Your task to perform on an android device: Open Android settings Image 0: 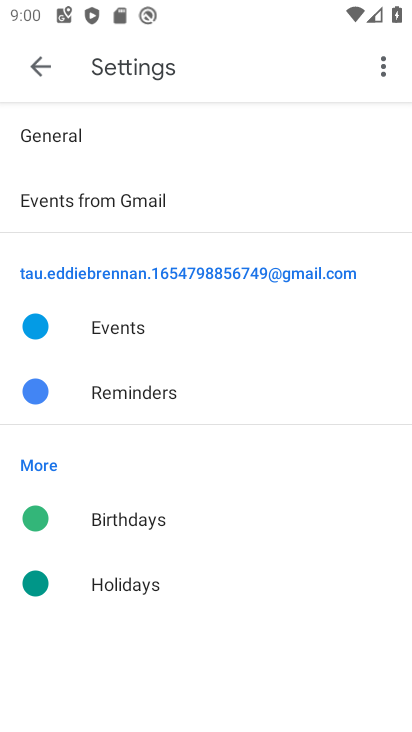
Step 0: press home button
Your task to perform on an android device: Open Android settings Image 1: 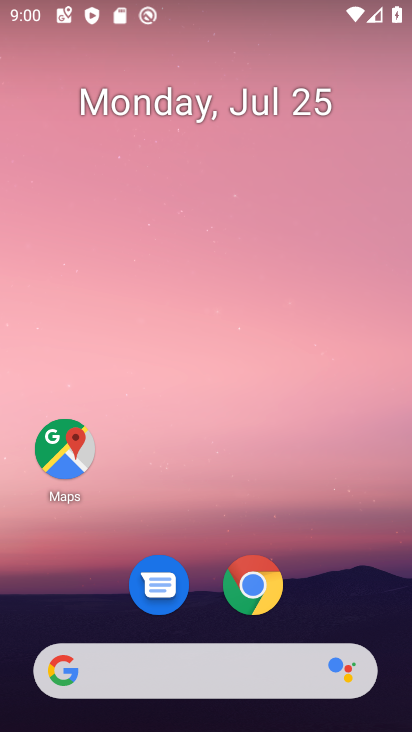
Step 1: drag from (182, 662) to (305, 173)
Your task to perform on an android device: Open Android settings Image 2: 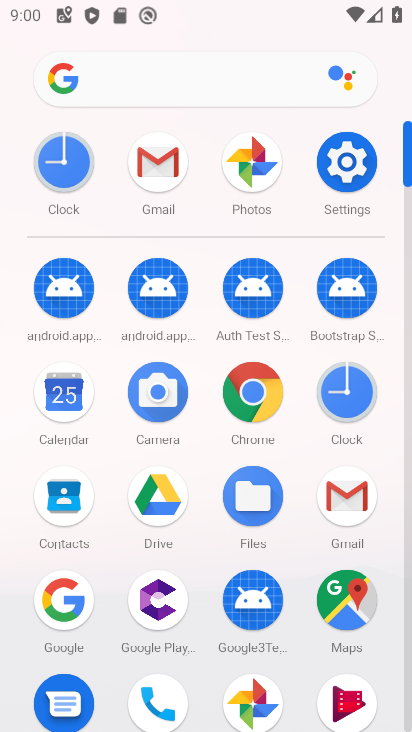
Step 2: click (357, 158)
Your task to perform on an android device: Open Android settings Image 3: 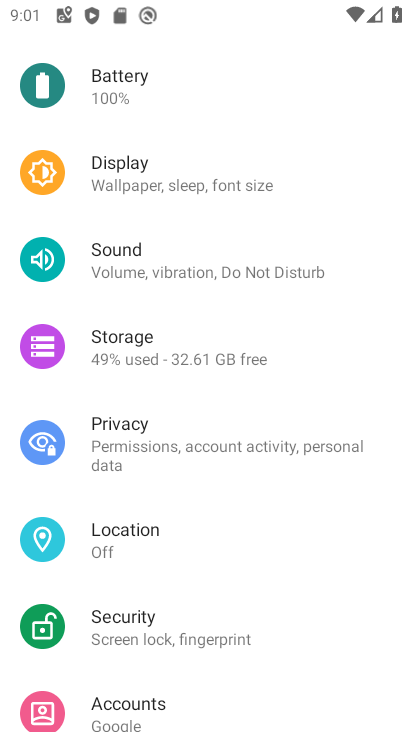
Step 3: task complete